Your task to perform on an android device: Open the map Image 0: 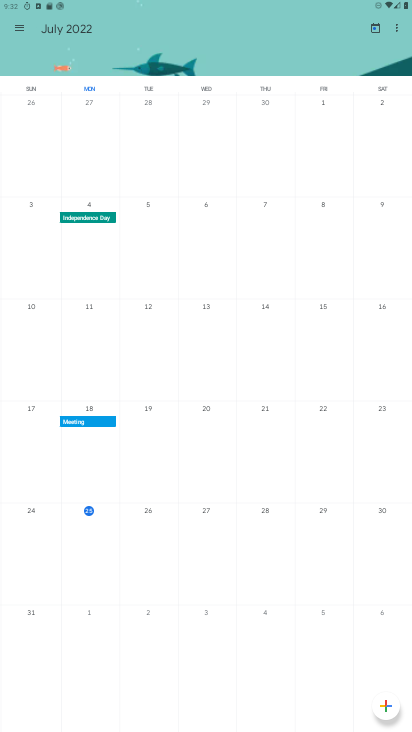
Step 0: press home button
Your task to perform on an android device: Open the map Image 1: 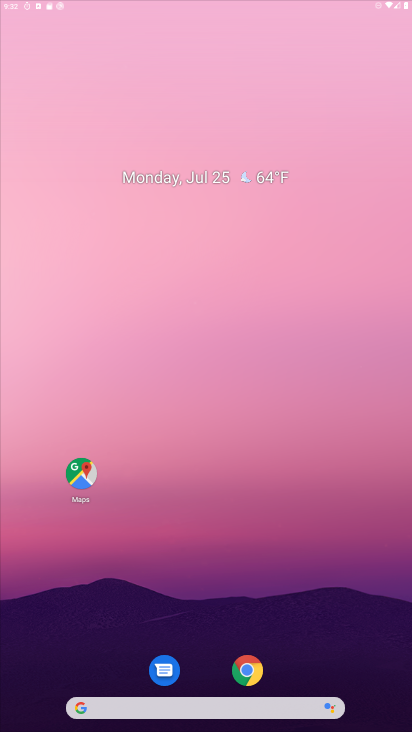
Step 1: drag from (400, 670) to (204, 60)
Your task to perform on an android device: Open the map Image 2: 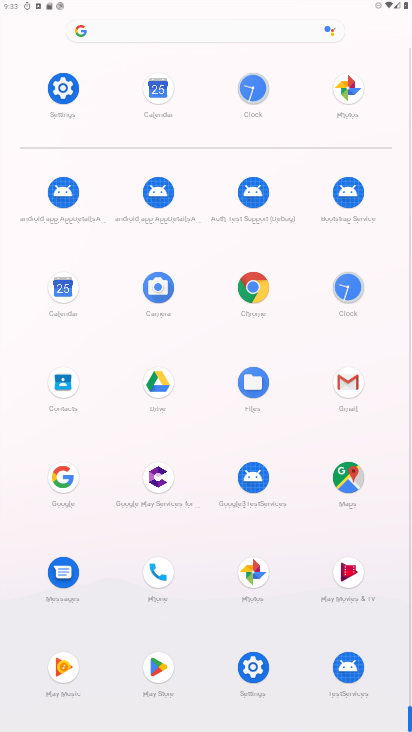
Step 2: click (348, 466)
Your task to perform on an android device: Open the map Image 3: 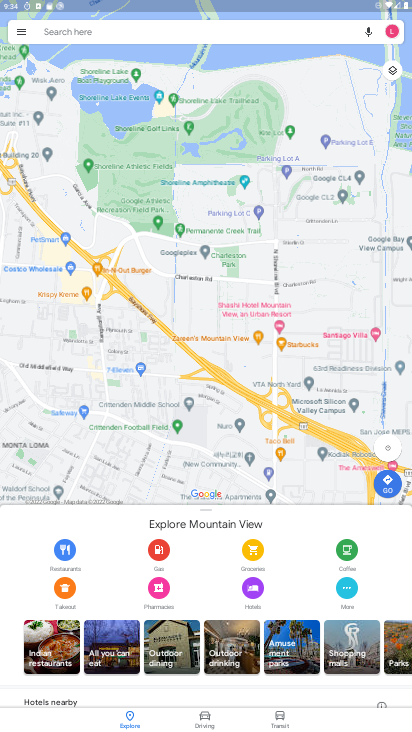
Step 3: task complete